Your task to perform on an android device: toggle javascript in the chrome app Image 0: 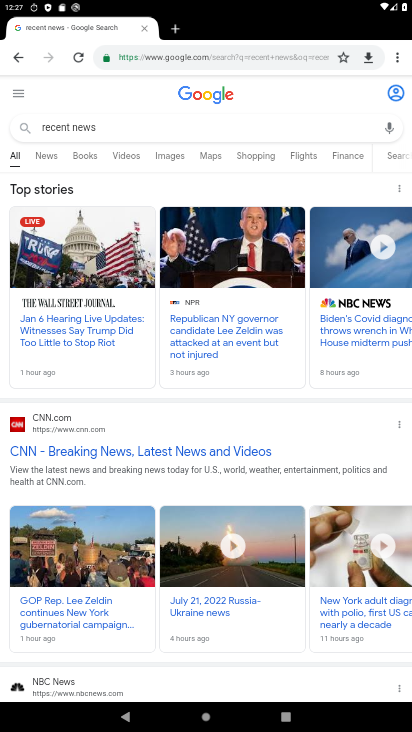
Step 0: drag from (403, 45) to (307, 358)
Your task to perform on an android device: toggle javascript in the chrome app Image 1: 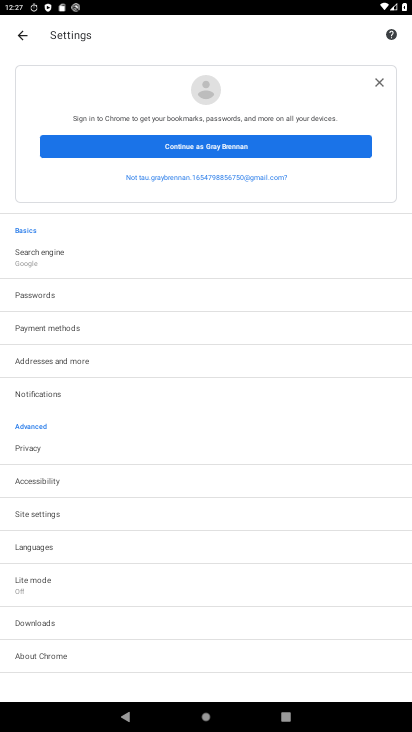
Step 1: click (50, 524)
Your task to perform on an android device: toggle javascript in the chrome app Image 2: 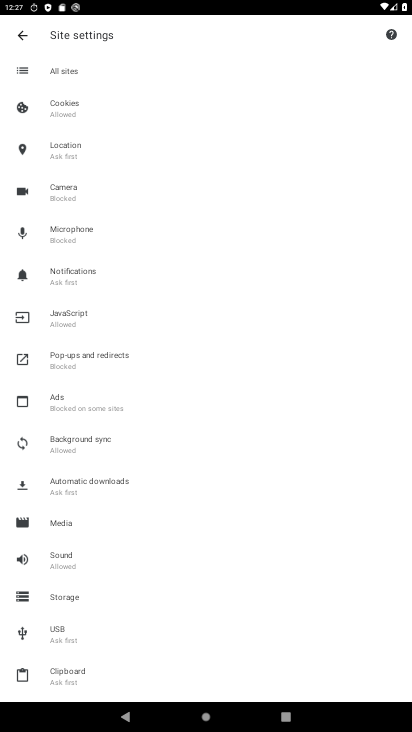
Step 2: click (63, 315)
Your task to perform on an android device: toggle javascript in the chrome app Image 3: 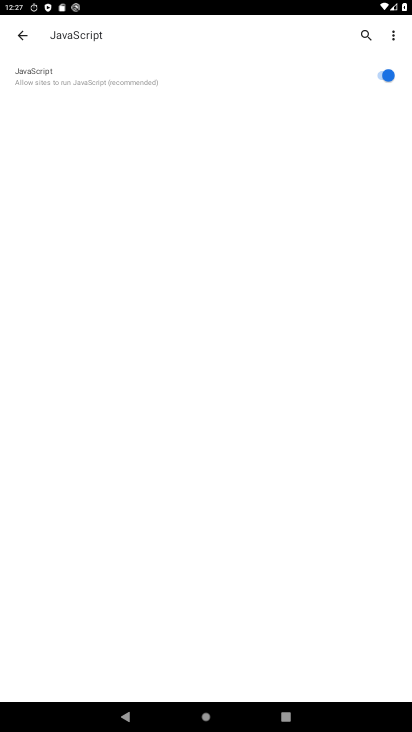
Step 3: click (380, 75)
Your task to perform on an android device: toggle javascript in the chrome app Image 4: 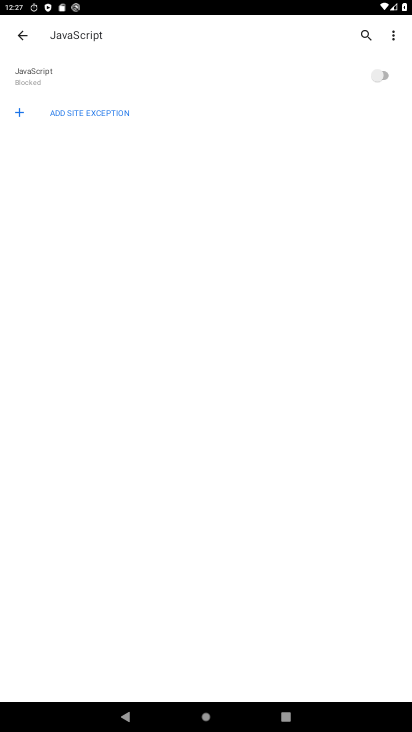
Step 4: task complete